Your task to perform on an android device: open a new tab in the chrome app Image 0: 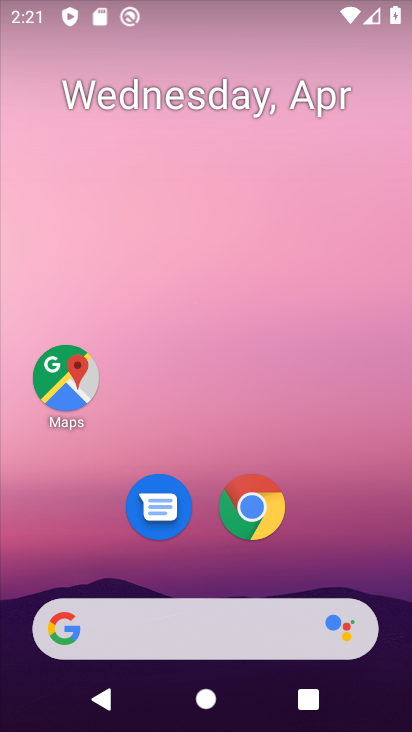
Step 0: click (269, 502)
Your task to perform on an android device: open a new tab in the chrome app Image 1: 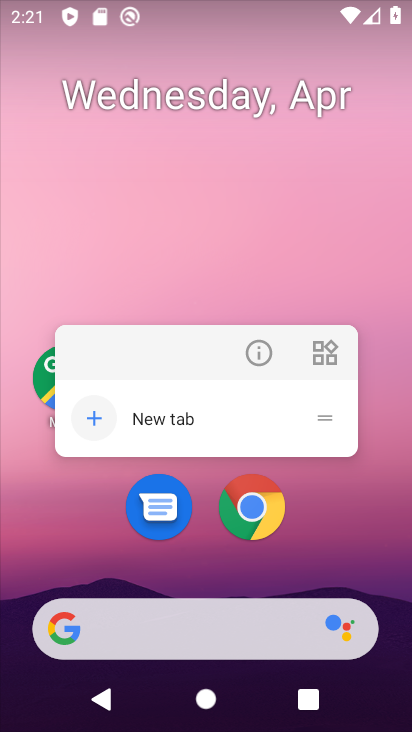
Step 1: click (269, 502)
Your task to perform on an android device: open a new tab in the chrome app Image 2: 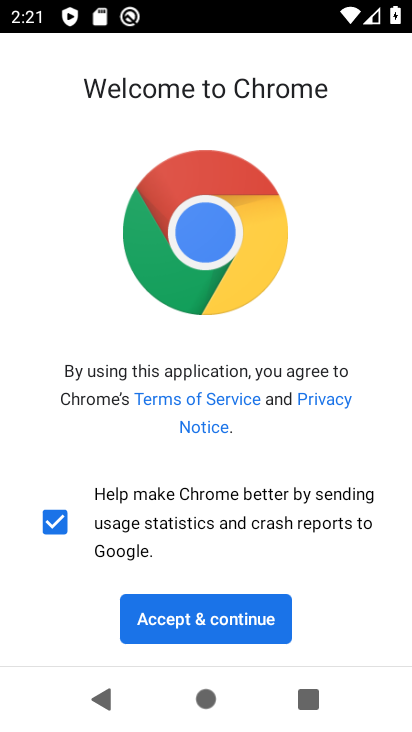
Step 2: click (212, 607)
Your task to perform on an android device: open a new tab in the chrome app Image 3: 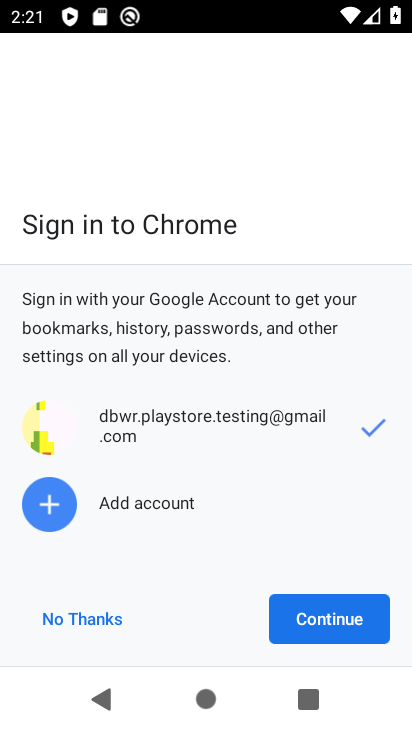
Step 3: click (295, 596)
Your task to perform on an android device: open a new tab in the chrome app Image 4: 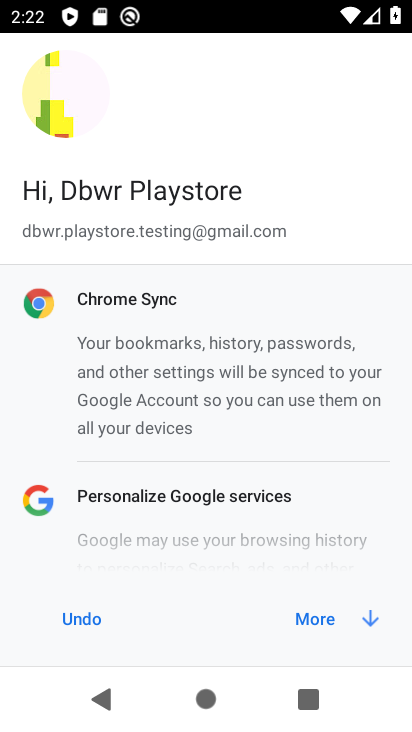
Step 4: click (311, 612)
Your task to perform on an android device: open a new tab in the chrome app Image 5: 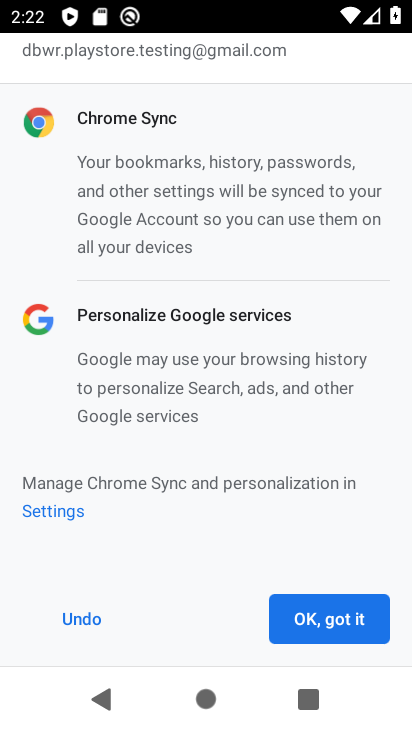
Step 5: click (311, 612)
Your task to perform on an android device: open a new tab in the chrome app Image 6: 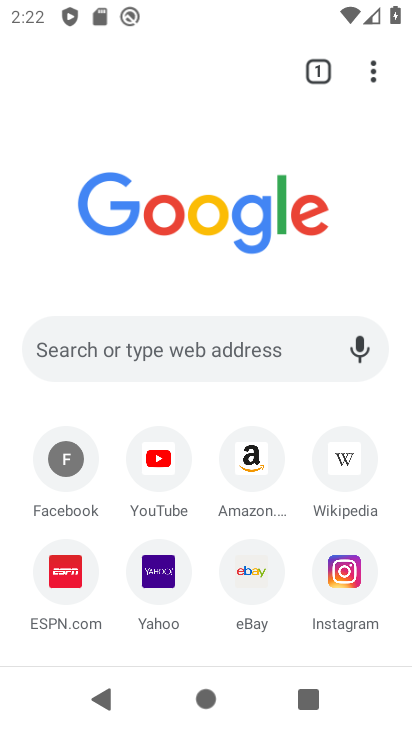
Step 6: task complete